Your task to perform on an android device: open sync settings in chrome Image 0: 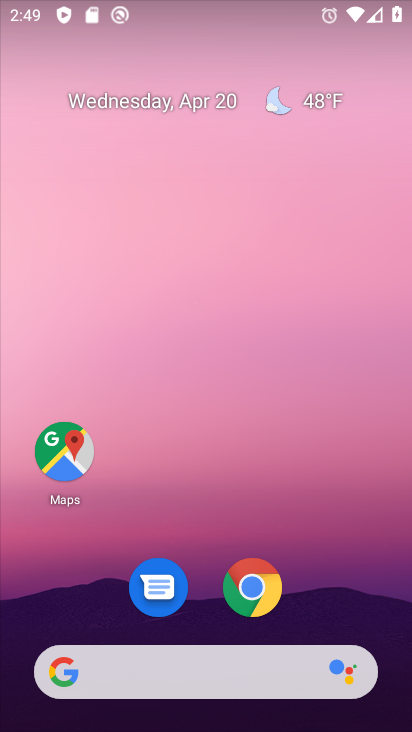
Step 0: click (246, 588)
Your task to perform on an android device: open sync settings in chrome Image 1: 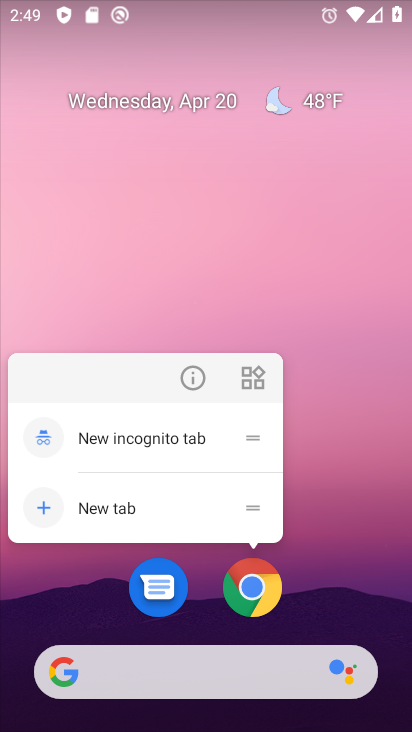
Step 1: click (245, 586)
Your task to perform on an android device: open sync settings in chrome Image 2: 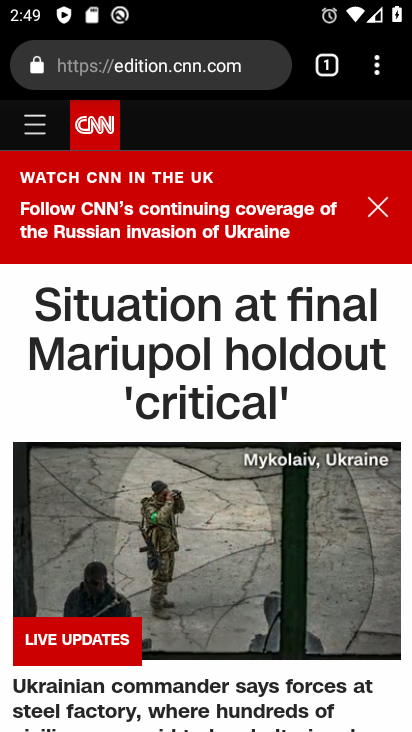
Step 2: drag from (375, 80) to (232, 637)
Your task to perform on an android device: open sync settings in chrome Image 3: 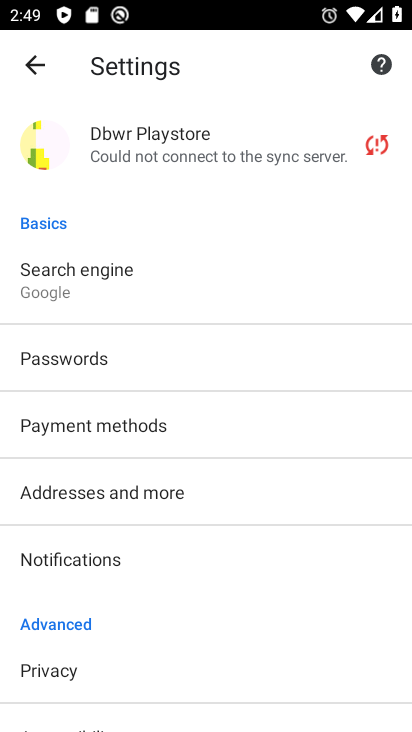
Step 3: click (251, 179)
Your task to perform on an android device: open sync settings in chrome Image 4: 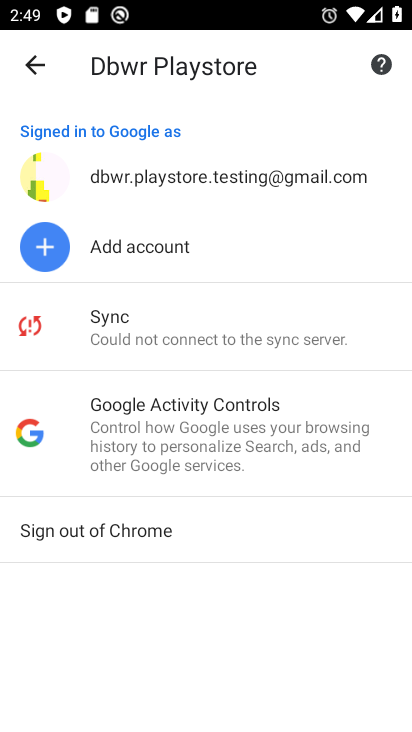
Step 4: click (287, 332)
Your task to perform on an android device: open sync settings in chrome Image 5: 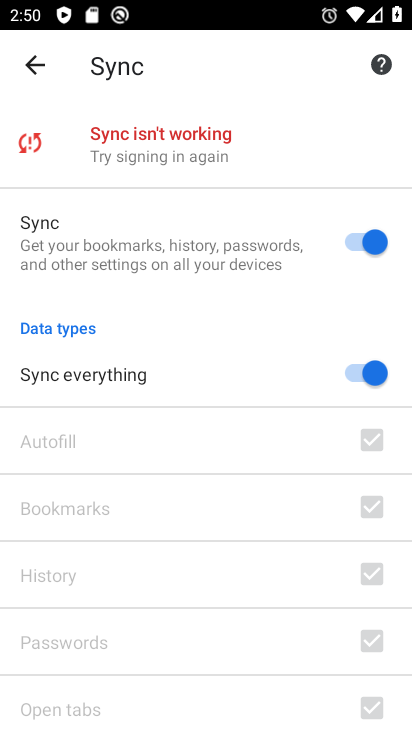
Step 5: task complete